Your task to perform on an android device: change your default location settings in chrome Image 0: 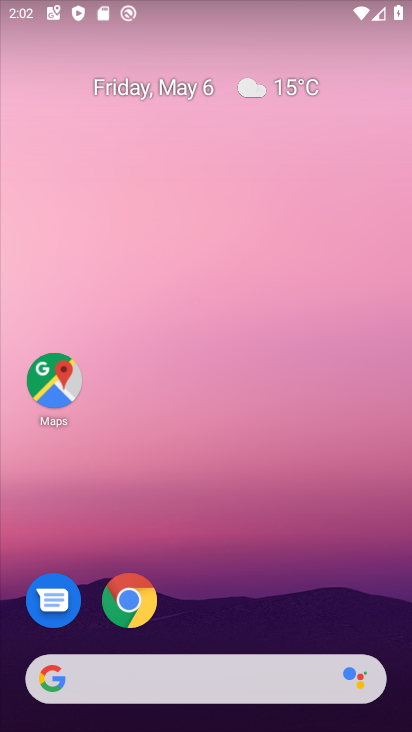
Step 0: drag from (324, 606) to (294, 60)
Your task to perform on an android device: change your default location settings in chrome Image 1: 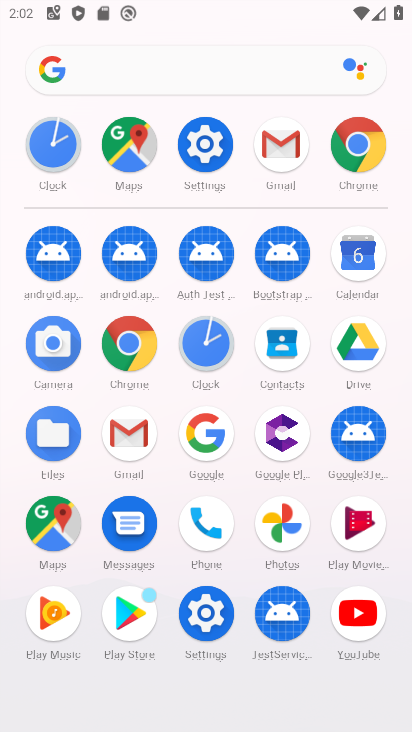
Step 1: click (135, 353)
Your task to perform on an android device: change your default location settings in chrome Image 2: 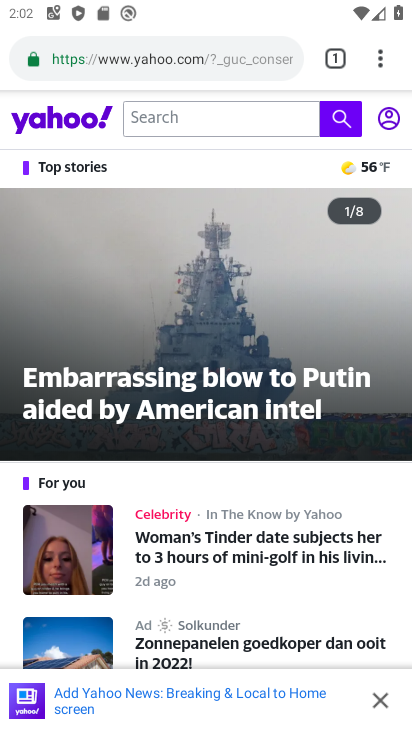
Step 2: press back button
Your task to perform on an android device: change your default location settings in chrome Image 3: 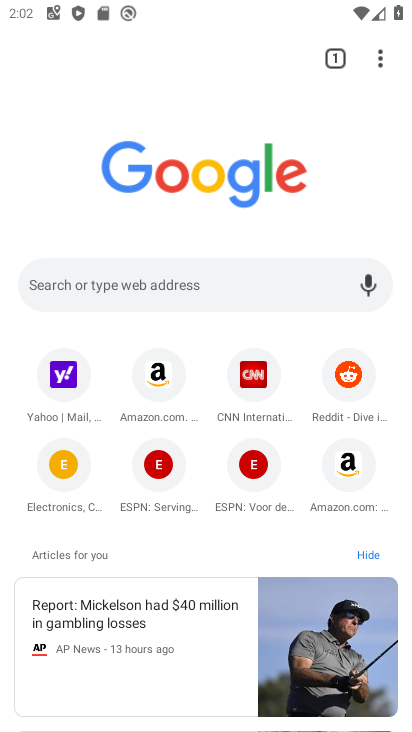
Step 3: click (377, 60)
Your task to perform on an android device: change your default location settings in chrome Image 4: 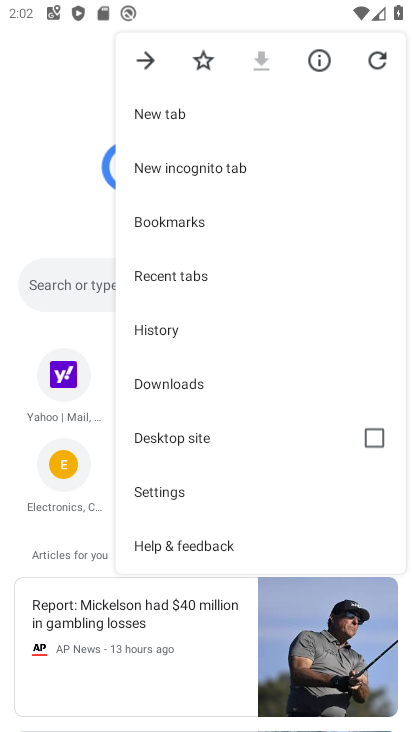
Step 4: click (252, 480)
Your task to perform on an android device: change your default location settings in chrome Image 5: 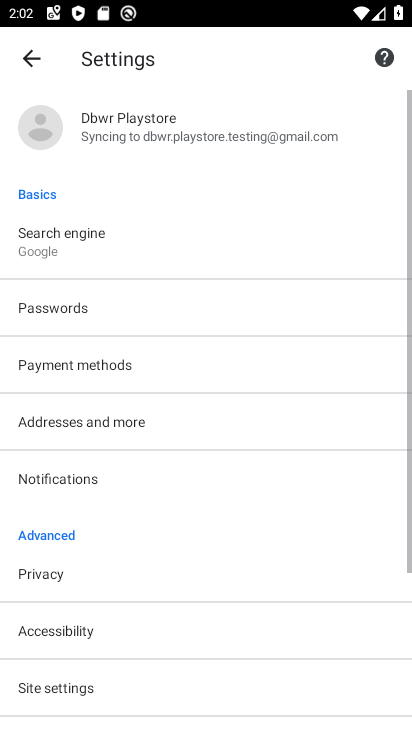
Step 5: click (119, 255)
Your task to perform on an android device: change your default location settings in chrome Image 6: 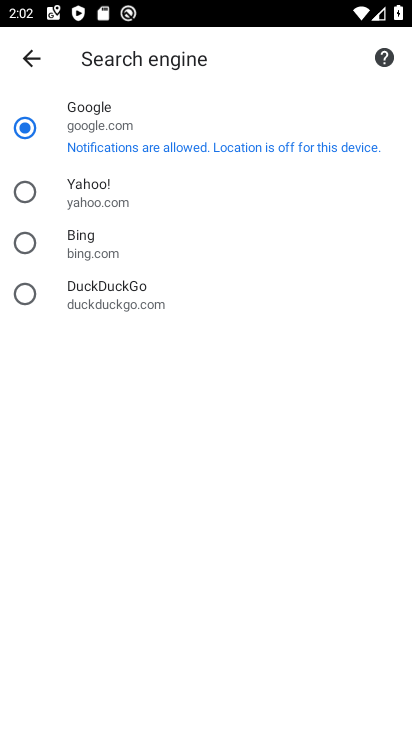
Step 6: click (110, 246)
Your task to perform on an android device: change your default location settings in chrome Image 7: 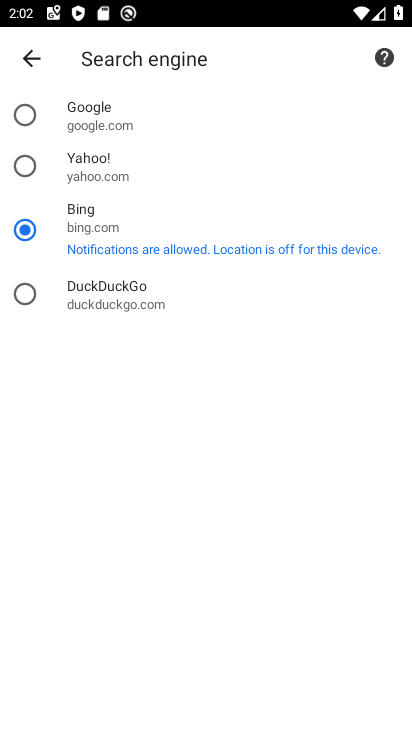
Step 7: task complete